Your task to perform on an android device: Search for vegetarian restaurants on Maps Image 0: 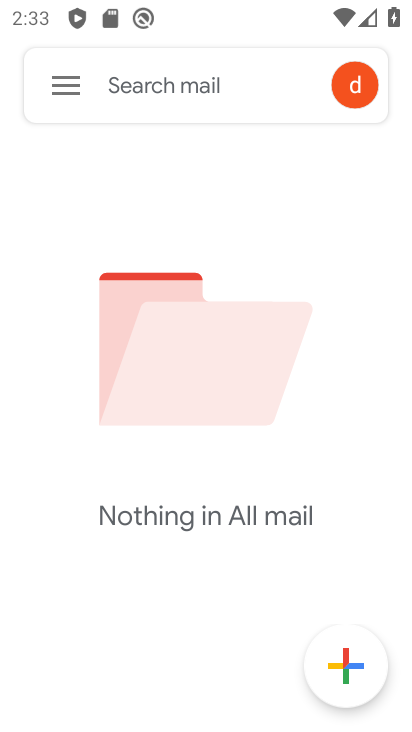
Step 0: press home button
Your task to perform on an android device: Search for vegetarian restaurants on Maps Image 1: 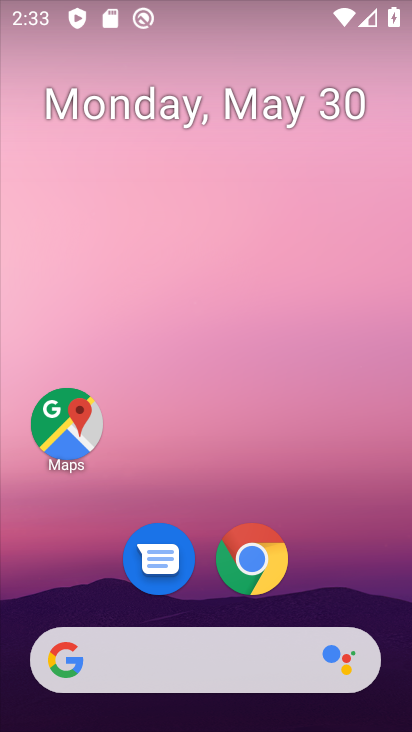
Step 1: click (49, 417)
Your task to perform on an android device: Search for vegetarian restaurants on Maps Image 2: 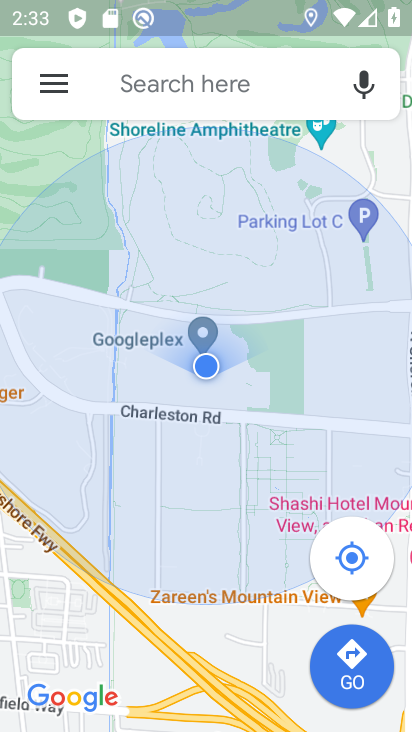
Step 2: click (238, 98)
Your task to perform on an android device: Search for vegetarian restaurants on Maps Image 3: 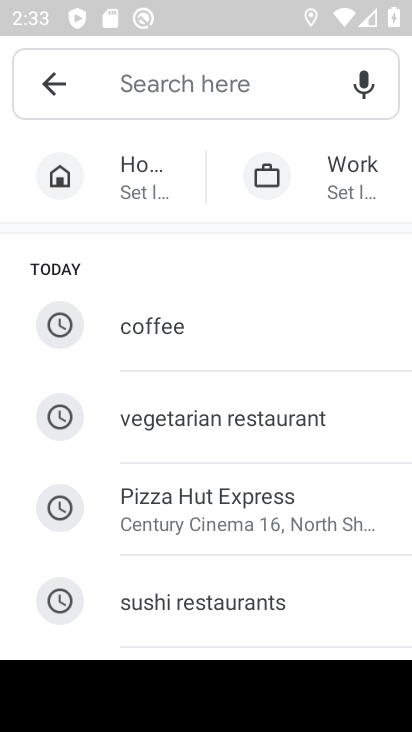
Step 3: type "Vegetarian restaurants"
Your task to perform on an android device: Search for vegetarian restaurants on Maps Image 4: 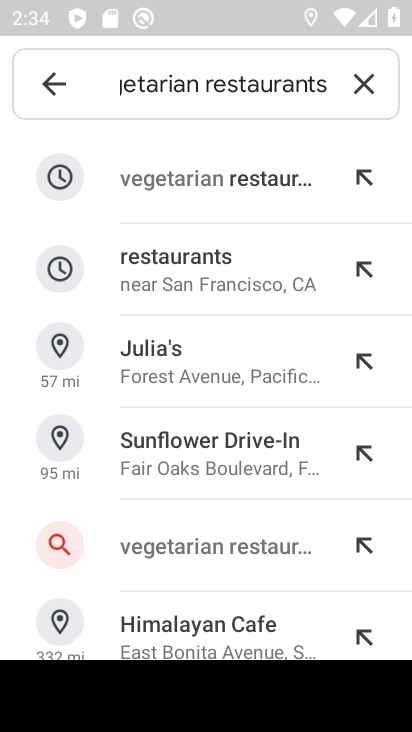
Step 4: click (248, 212)
Your task to perform on an android device: Search for vegetarian restaurants on Maps Image 5: 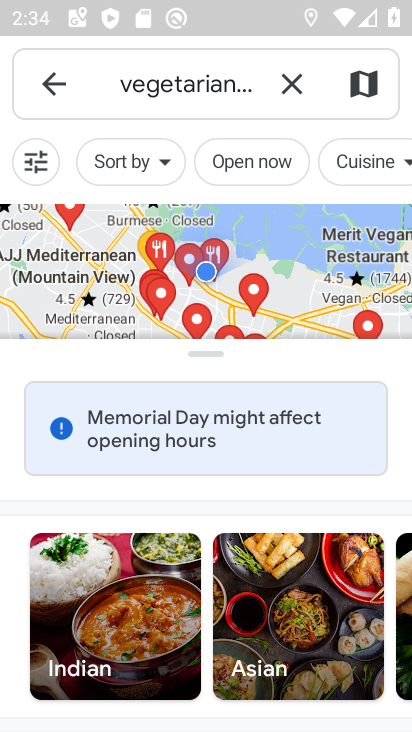
Step 5: task complete